Your task to perform on an android device: Check the news Image 0: 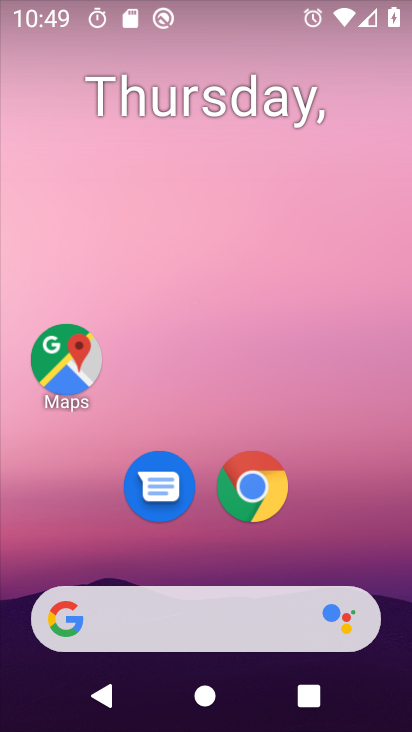
Step 0: drag from (389, 366) to (369, 193)
Your task to perform on an android device: Check the news Image 1: 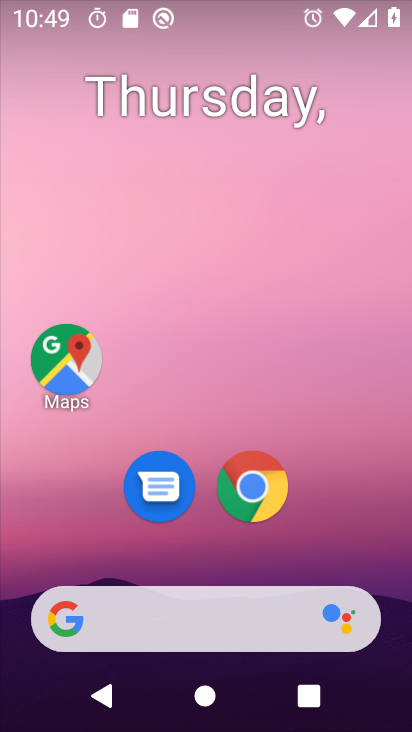
Step 1: drag from (384, 544) to (347, 130)
Your task to perform on an android device: Check the news Image 2: 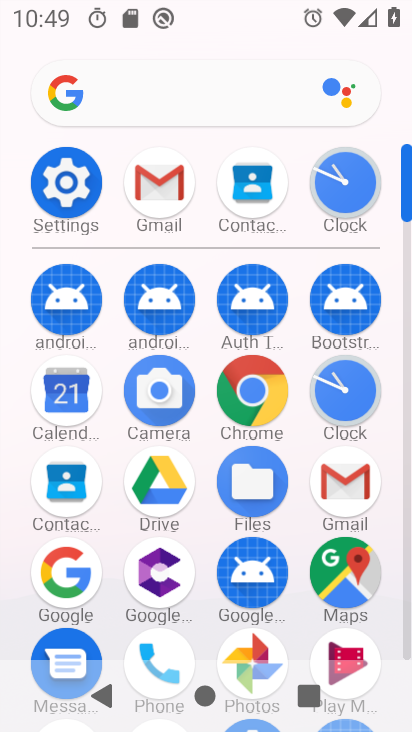
Step 2: click (63, 572)
Your task to perform on an android device: Check the news Image 3: 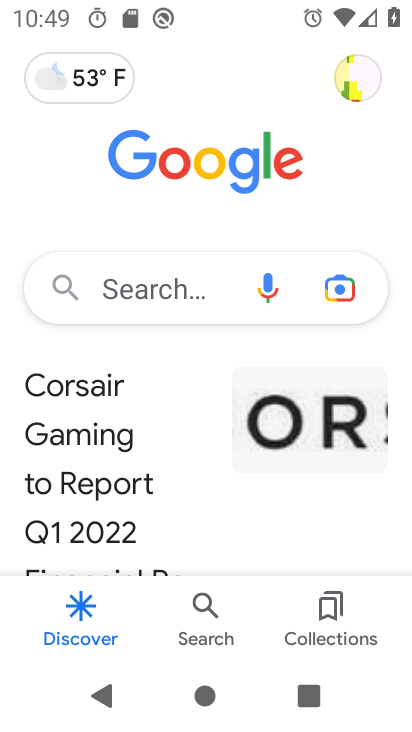
Step 3: task complete